Your task to perform on an android device: allow cookies in the chrome app Image 0: 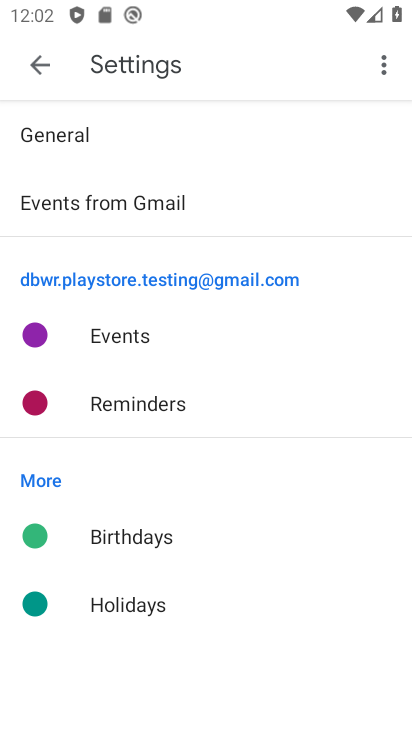
Step 0: press home button
Your task to perform on an android device: allow cookies in the chrome app Image 1: 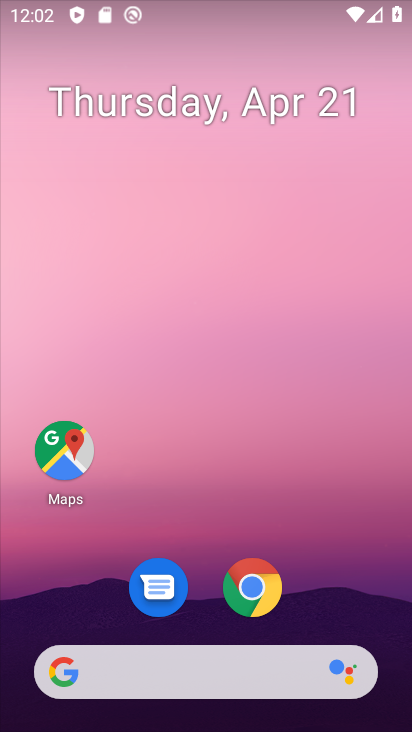
Step 1: click (262, 595)
Your task to perform on an android device: allow cookies in the chrome app Image 2: 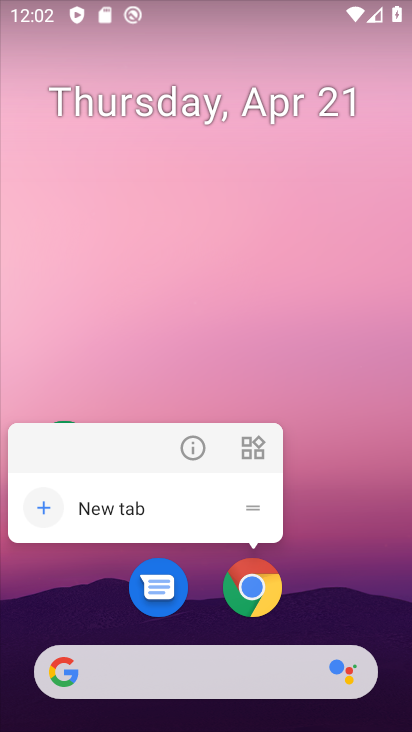
Step 2: click (260, 591)
Your task to perform on an android device: allow cookies in the chrome app Image 3: 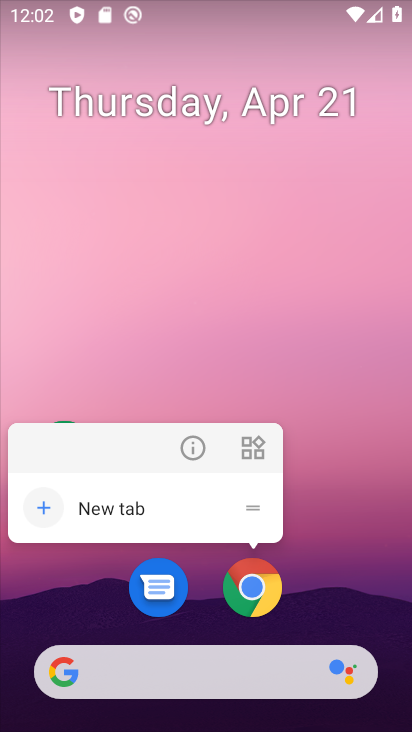
Step 3: click (254, 583)
Your task to perform on an android device: allow cookies in the chrome app Image 4: 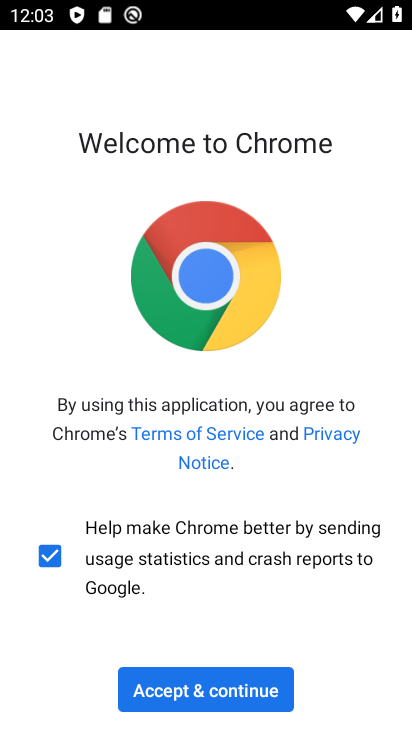
Step 4: click (240, 682)
Your task to perform on an android device: allow cookies in the chrome app Image 5: 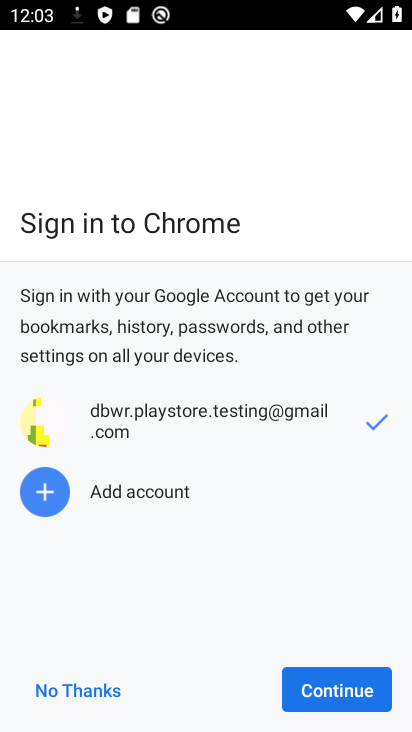
Step 5: click (320, 691)
Your task to perform on an android device: allow cookies in the chrome app Image 6: 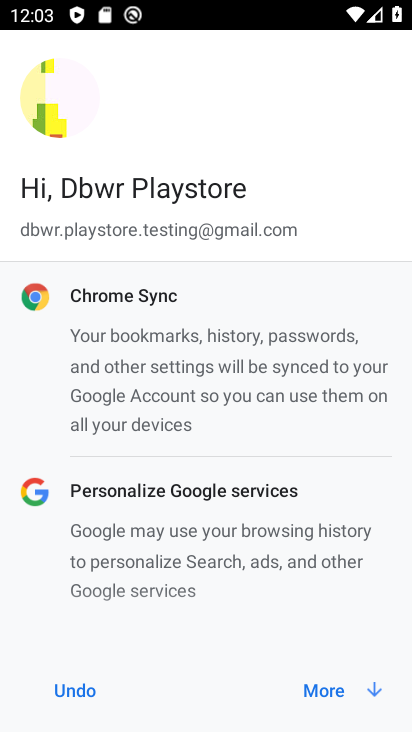
Step 6: click (319, 689)
Your task to perform on an android device: allow cookies in the chrome app Image 7: 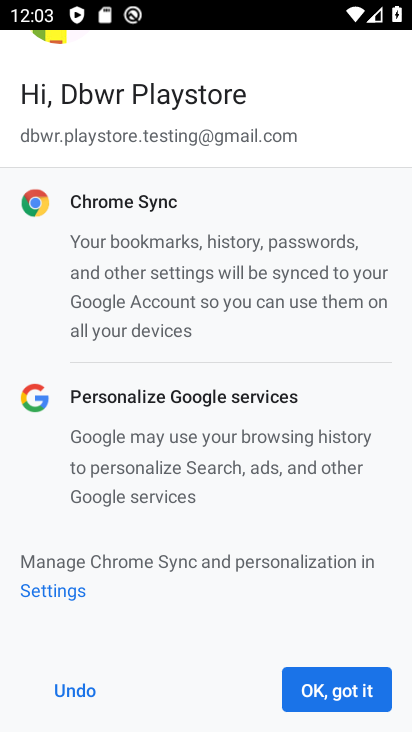
Step 7: click (319, 689)
Your task to perform on an android device: allow cookies in the chrome app Image 8: 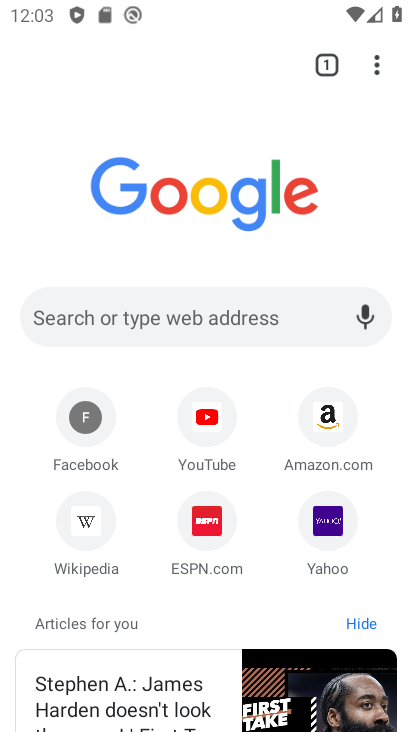
Step 8: click (375, 60)
Your task to perform on an android device: allow cookies in the chrome app Image 9: 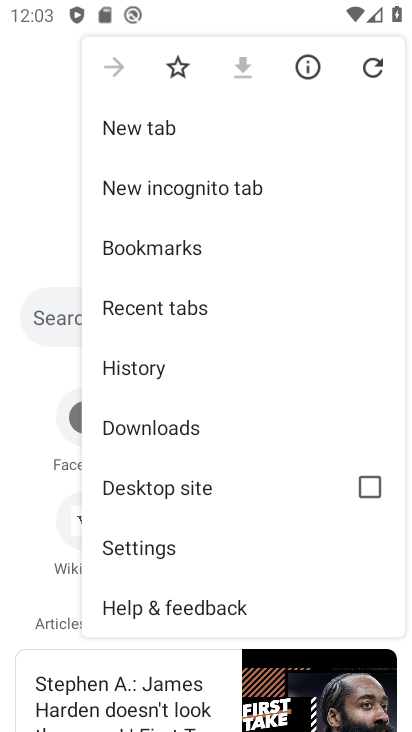
Step 9: click (175, 546)
Your task to perform on an android device: allow cookies in the chrome app Image 10: 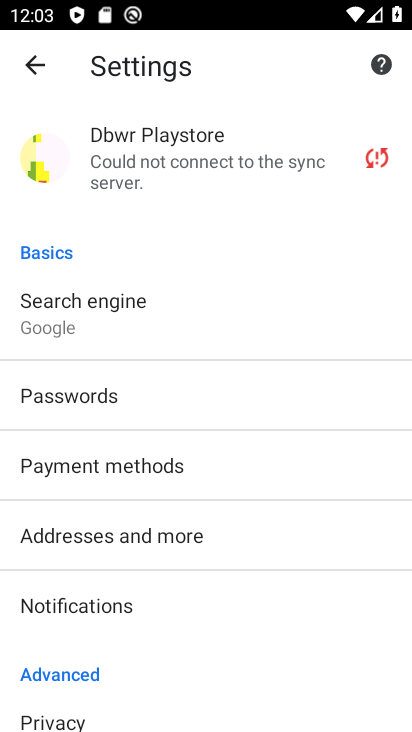
Step 10: drag from (202, 652) to (210, 354)
Your task to perform on an android device: allow cookies in the chrome app Image 11: 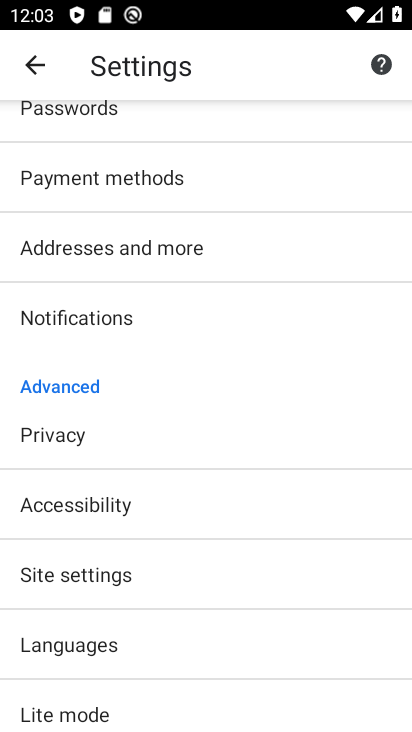
Step 11: click (105, 582)
Your task to perform on an android device: allow cookies in the chrome app Image 12: 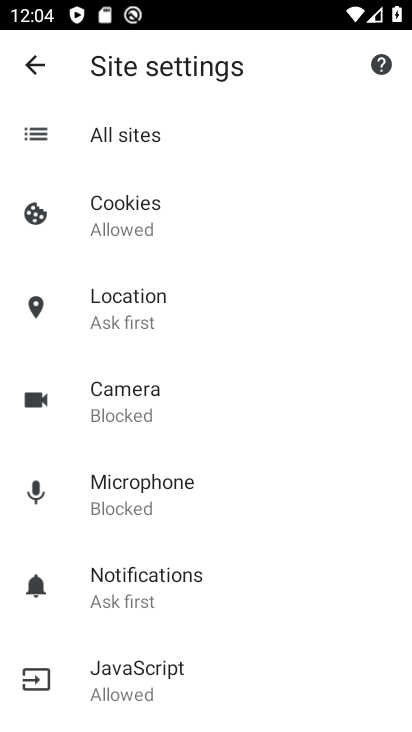
Step 12: task complete